Your task to perform on an android device: toggle javascript in the chrome app Image 0: 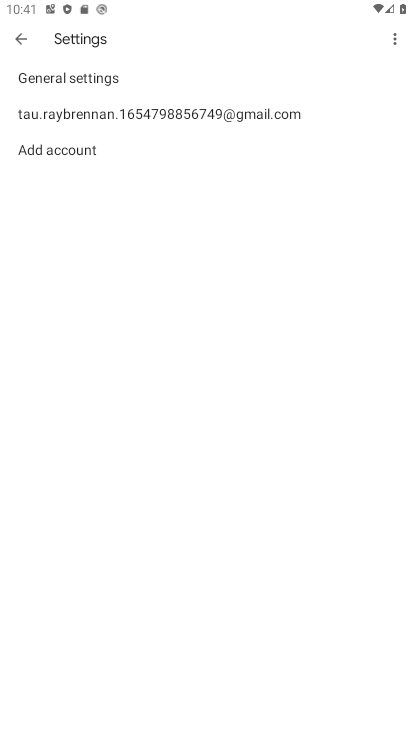
Step 0: press home button
Your task to perform on an android device: toggle javascript in the chrome app Image 1: 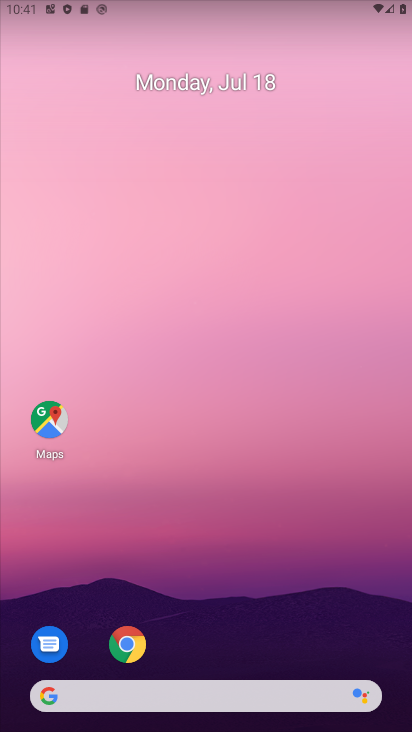
Step 1: drag from (172, 655) to (244, 165)
Your task to perform on an android device: toggle javascript in the chrome app Image 2: 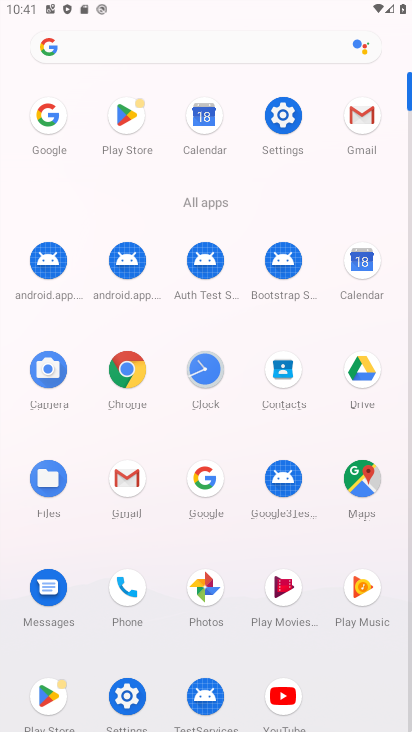
Step 2: click (128, 368)
Your task to perform on an android device: toggle javascript in the chrome app Image 3: 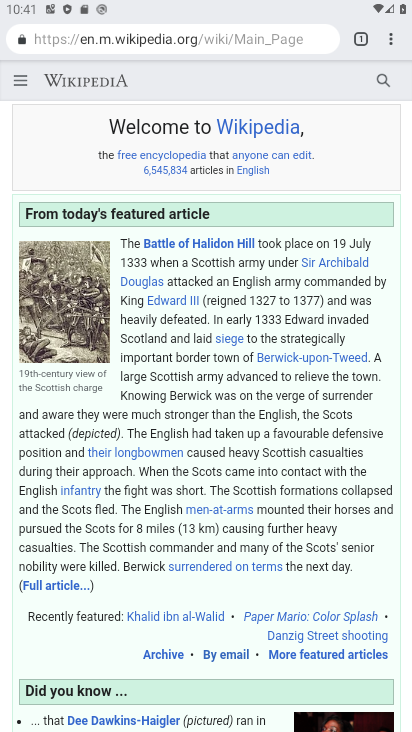
Step 3: click (387, 43)
Your task to perform on an android device: toggle javascript in the chrome app Image 4: 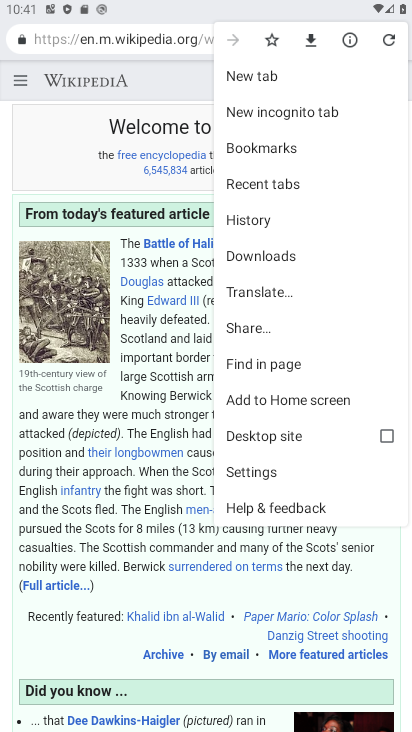
Step 4: click (265, 470)
Your task to perform on an android device: toggle javascript in the chrome app Image 5: 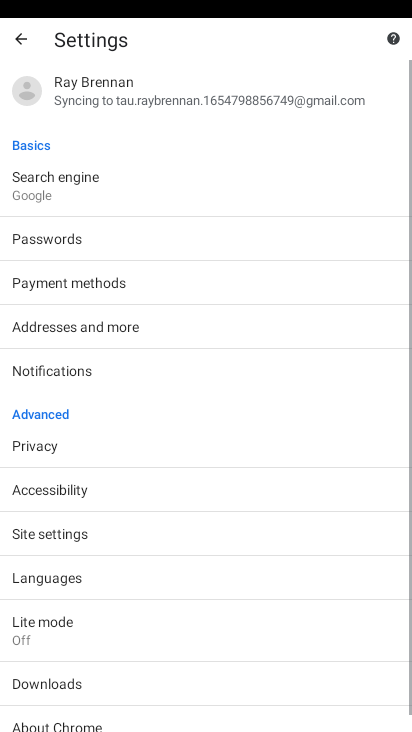
Step 5: click (70, 531)
Your task to perform on an android device: toggle javascript in the chrome app Image 6: 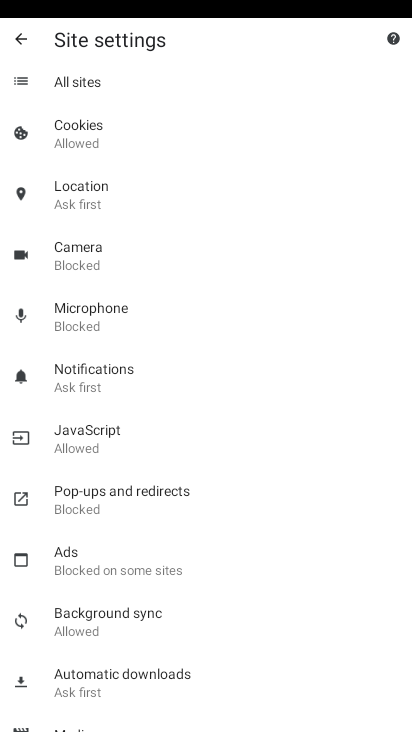
Step 6: click (87, 433)
Your task to perform on an android device: toggle javascript in the chrome app Image 7: 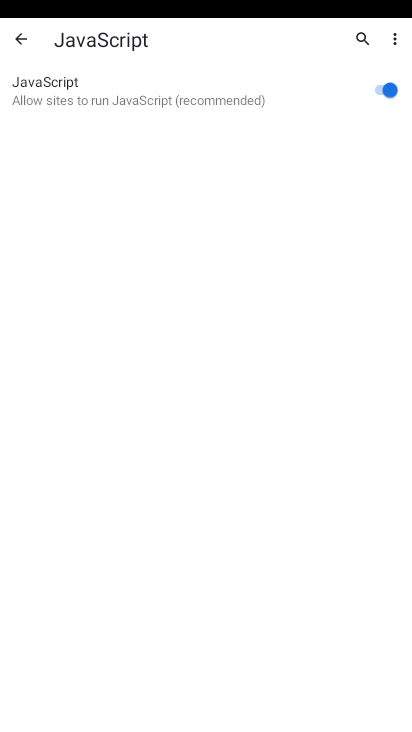
Step 7: click (383, 90)
Your task to perform on an android device: toggle javascript in the chrome app Image 8: 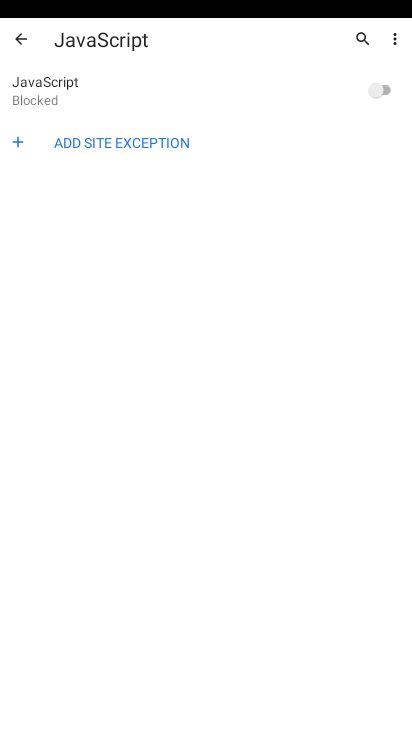
Step 8: task complete